Your task to perform on an android device: turn notification dots on Image 0: 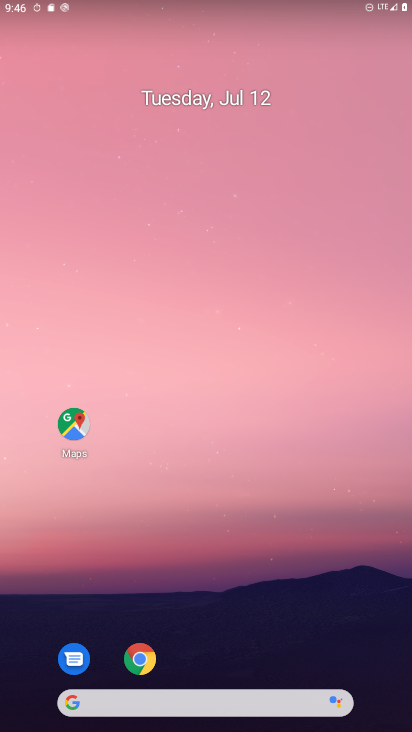
Step 0: drag from (381, 704) to (212, 66)
Your task to perform on an android device: turn notification dots on Image 1: 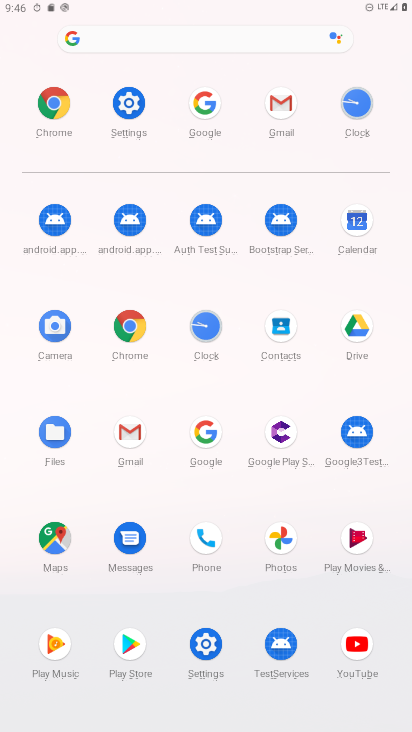
Step 1: click (130, 117)
Your task to perform on an android device: turn notification dots on Image 2: 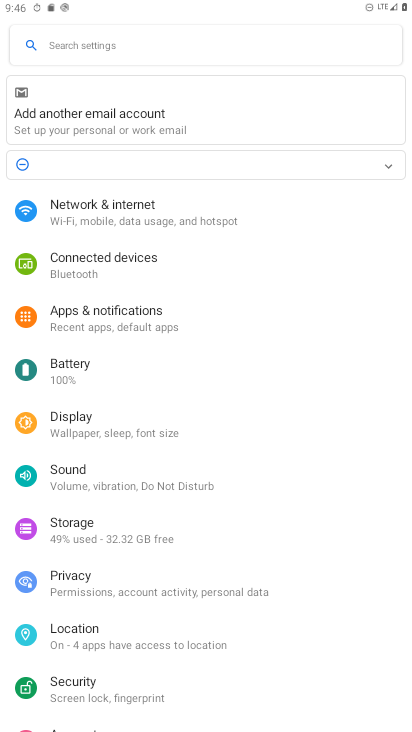
Step 2: click (128, 330)
Your task to perform on an android device: turn notification dots on Image 3: 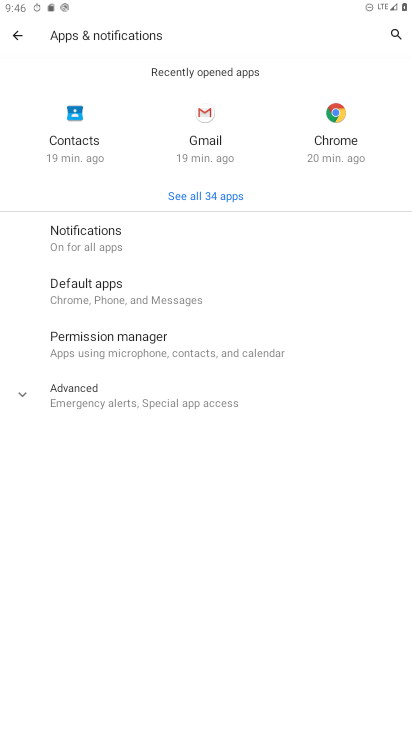
Step 3: click (70, 402)
Your task to perform on an android device: turn notification dots on Image 4: 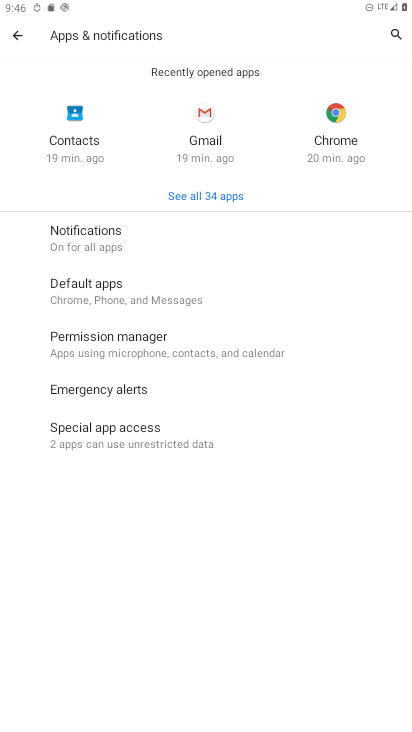
Step 4: click (96, 252)
Your task to perform on an android device: turn notification dots on Image 5: 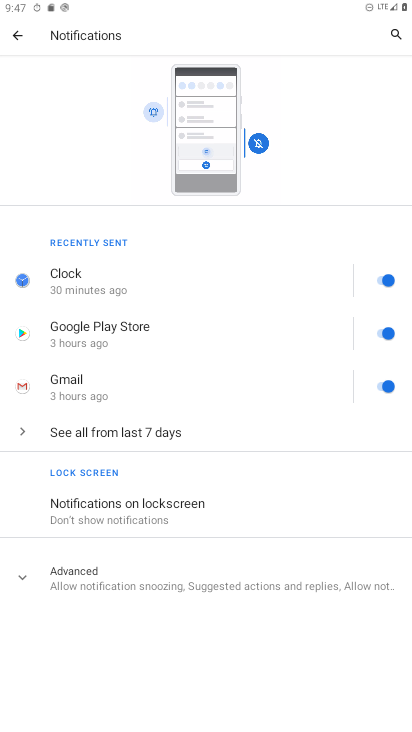
Step 5: click (93, 571)
Your task to perform on an android device: turn notification dots on Image 6: 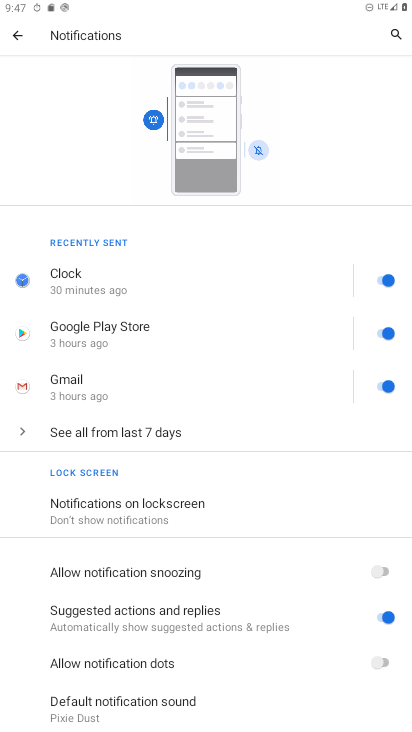
Step 6: click (196, 669)
Your task to perform on an android device: turn notification dots on Image 7: 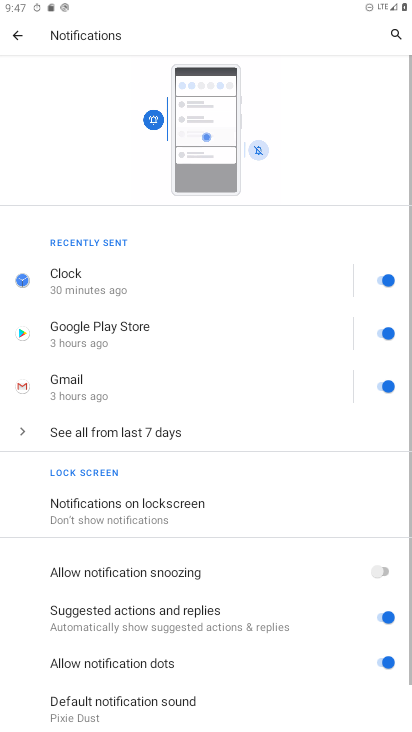
Step 7: task complete